Your task to perform on an android device: Open the calendar app, open the side menu, and click the "Day" option Image 0: 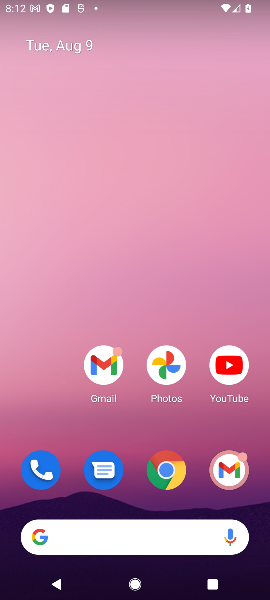
Step 0: drag from (127, 509) to (153, 173)
Your task to perform on an android device: Open the calendar app, open the side menu, and click the "Day" option Image 1: 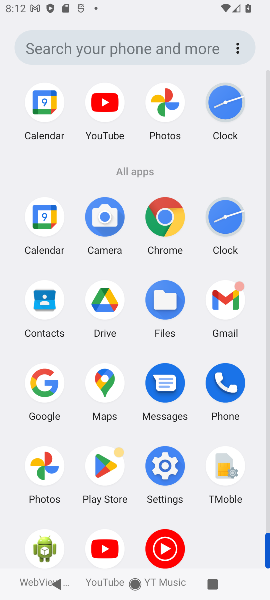
Step 1: click (47, 226)
Your task to perform on an android device: Open the calendar app, open the side menu, and click the "Day" option Image 2: 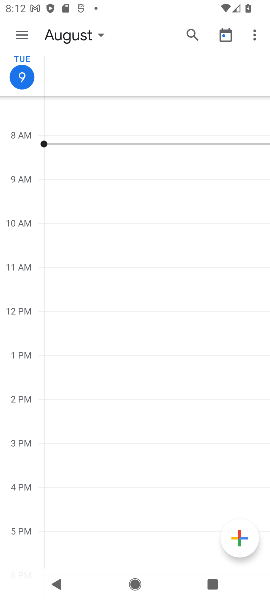
Step 2: click (23, 35)
Your task to perform on an android device: Open the calendar app, open the side menu, and click the "Day" option Image 3: 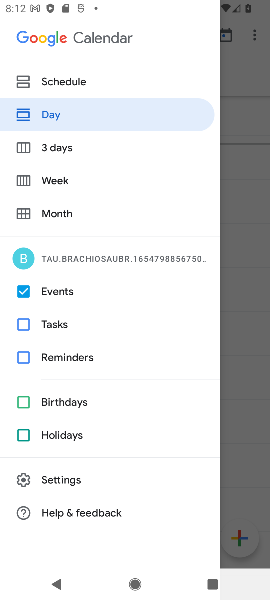
Step 3: click (102, 118)
Your task to perform on an android device: Open the calendar app, open the side menu, and click the "Day" option Image 4: 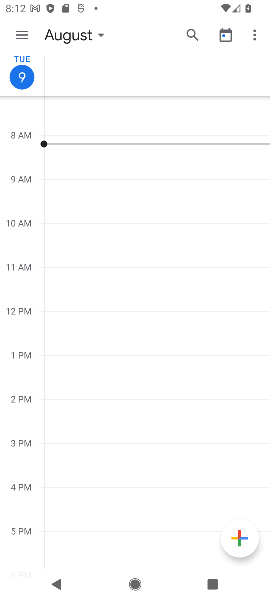
Step 4: task complete